Your task to perform on an android device: turn on the 24-hour format for clock Image 0: 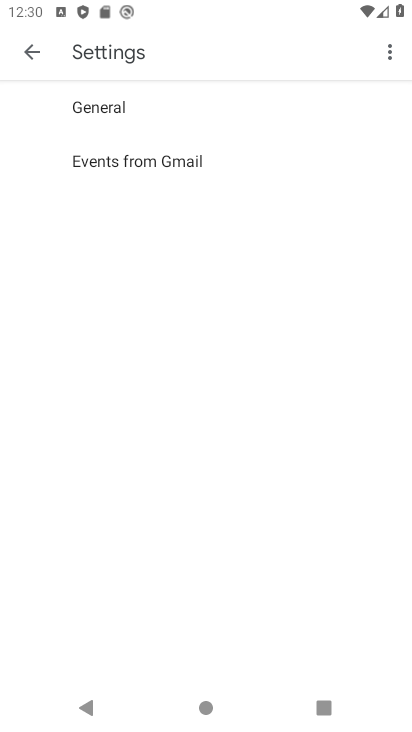
Step 0: press home button
Your task to perform on an android device: turn on the 24-hour format for clock Image 1: 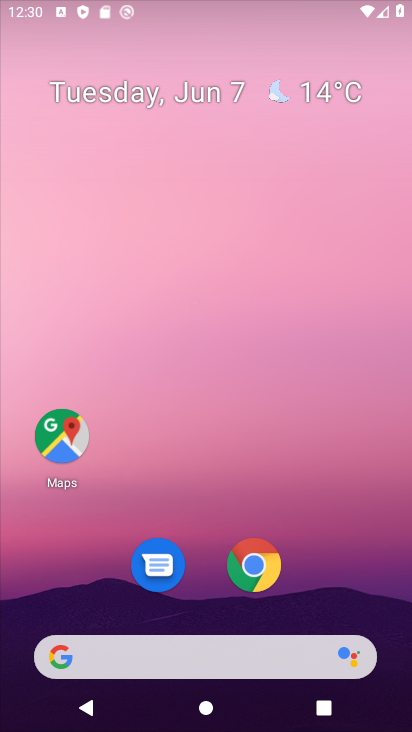
Step 1: drag from (282, 619) to (378, 89)
Your task to perform on an android device: turn on the 24-hour format for clock Image 2: 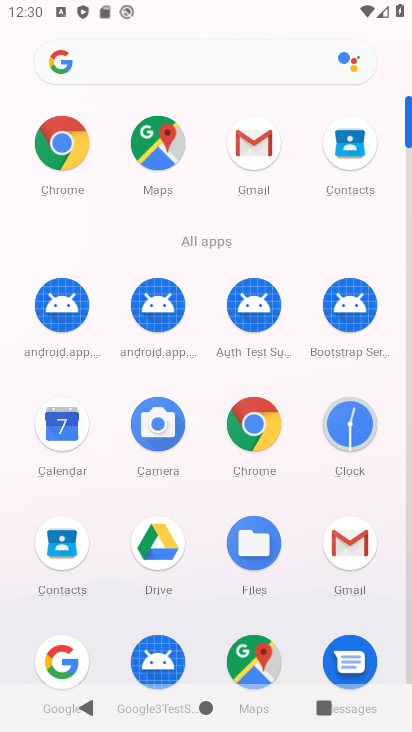
Step 2: click (341, 426)
Your task to perform on an android device: turn on the 24-hour format for clock Image 3: 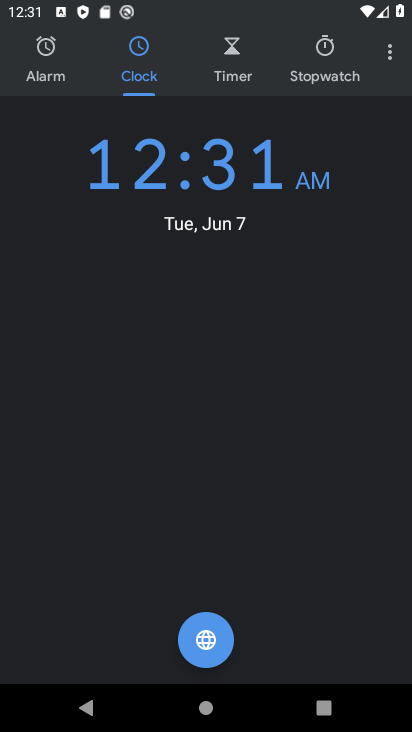
Step 3: click (392, 50)
Your task to perform on an android device: turn on the 24-hour format for clock Image 4: 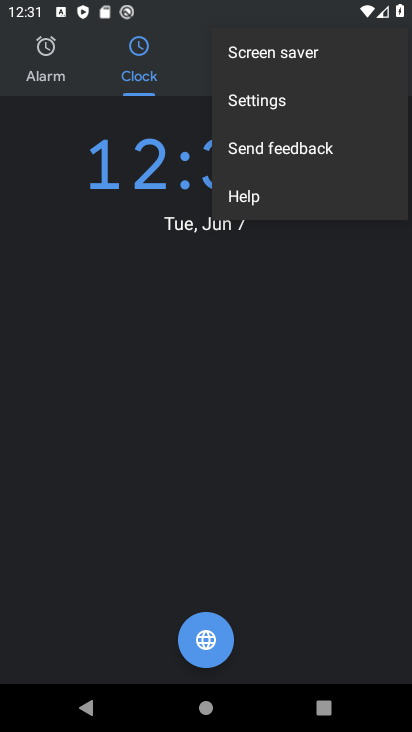
Step 4: click (296, 111)
Your task to perform on an android device: turn on the 24-hour format for clock Image 5: 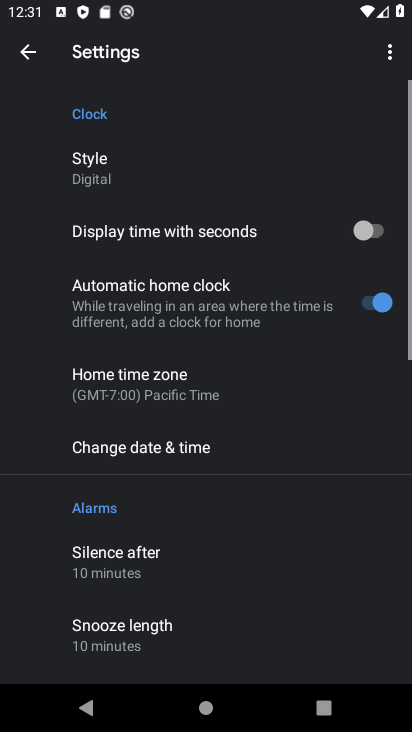
Step 5: drag from (244, 624) to (274, 458)
Your task to perform on an android device: turn on the 24-hour format for clock Image 6: 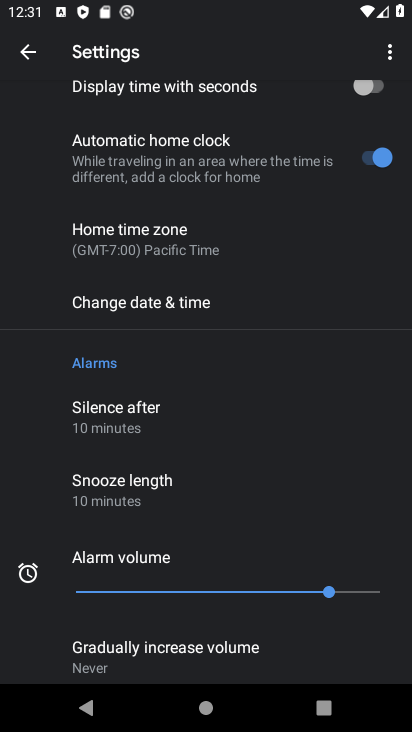
Step 6: click (236, 315)
Your task to perform on an android device: turn on the 24-hour format for clock Image 7: 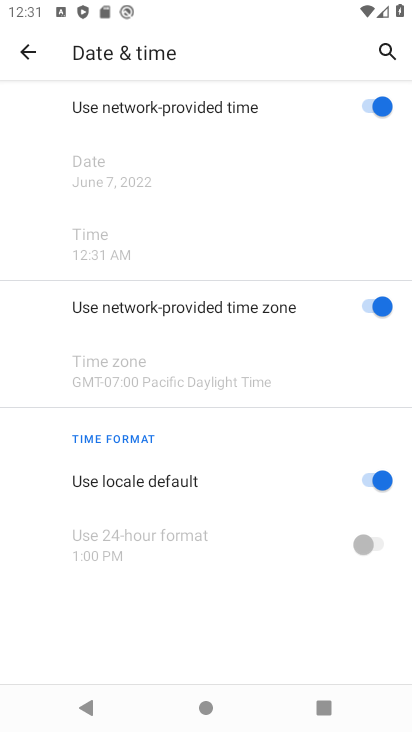
Step 7: drag from (236, 322) to (240, 484)
Your task to perform on an android device: turn on the 24-hour format for clock Image 8: 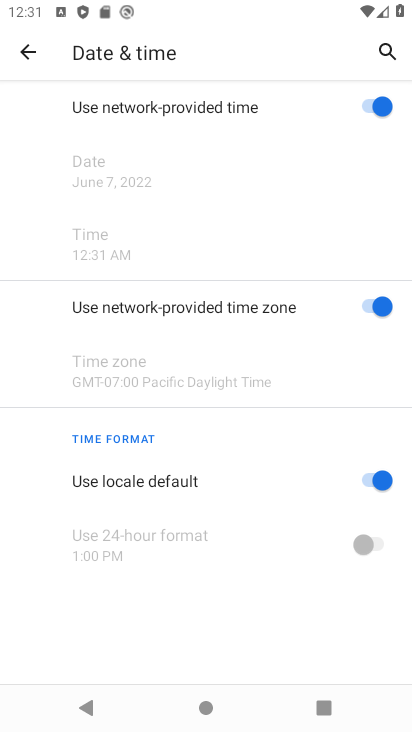
Step 8: click (362, 479)
Your task to perform on an android device: turn on the 24-hour format for clock Image 9: 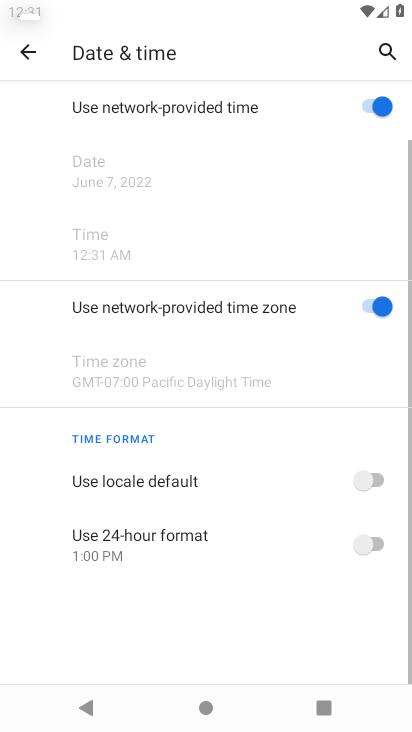
Step 9: task complete